Your task to perform on an android device: toggle data saver in the chrome app Image 0: 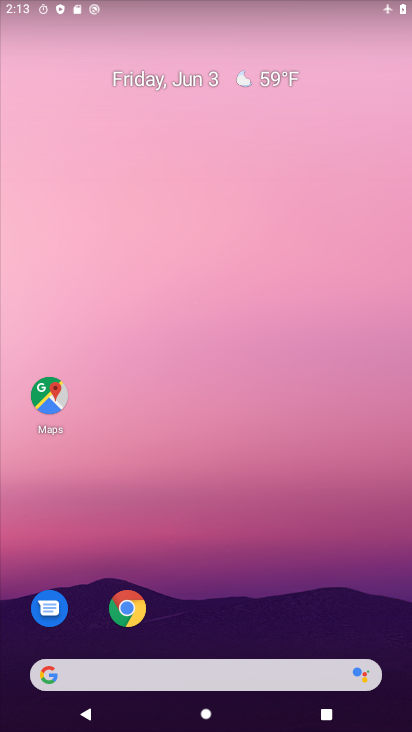
Step 0: click (130, 611)
Your task to perform on an android device: toggle data saver in the chrome app Image 1: 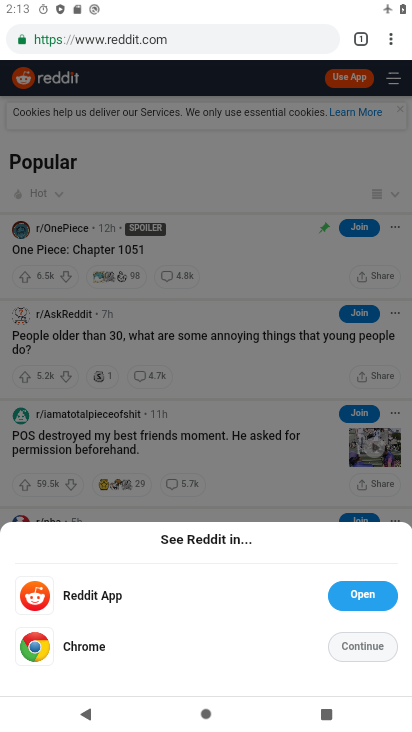
Step 1: task complete